Your task to perform on an android device: Show the shopping cart on ebay.com. Image 0: 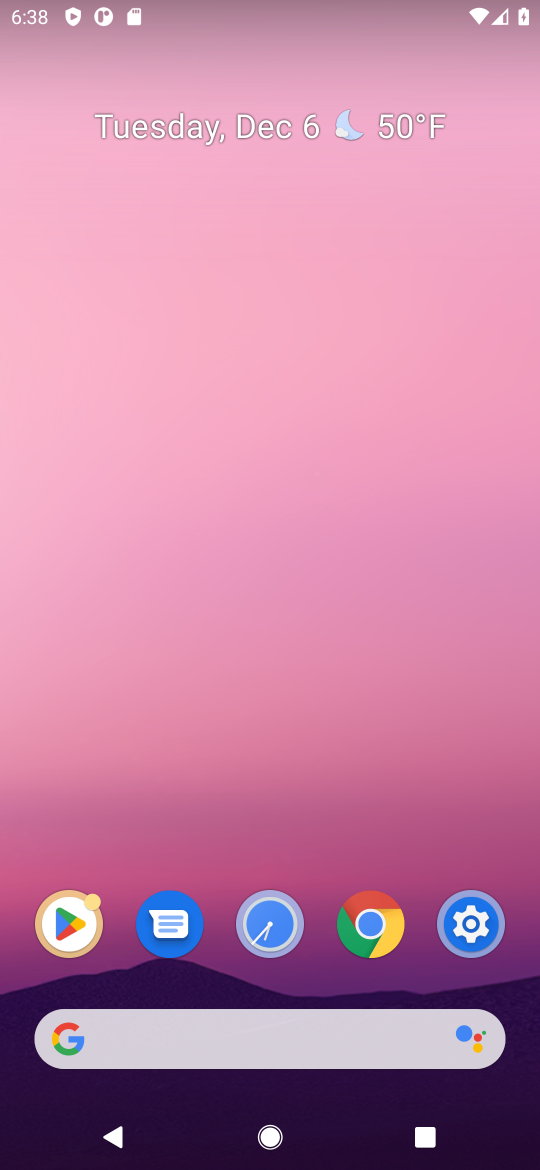
Step 0: click (261, 1047)
Your task to perform on an android device: Show the shopping cart on ebay.com. Image 1: 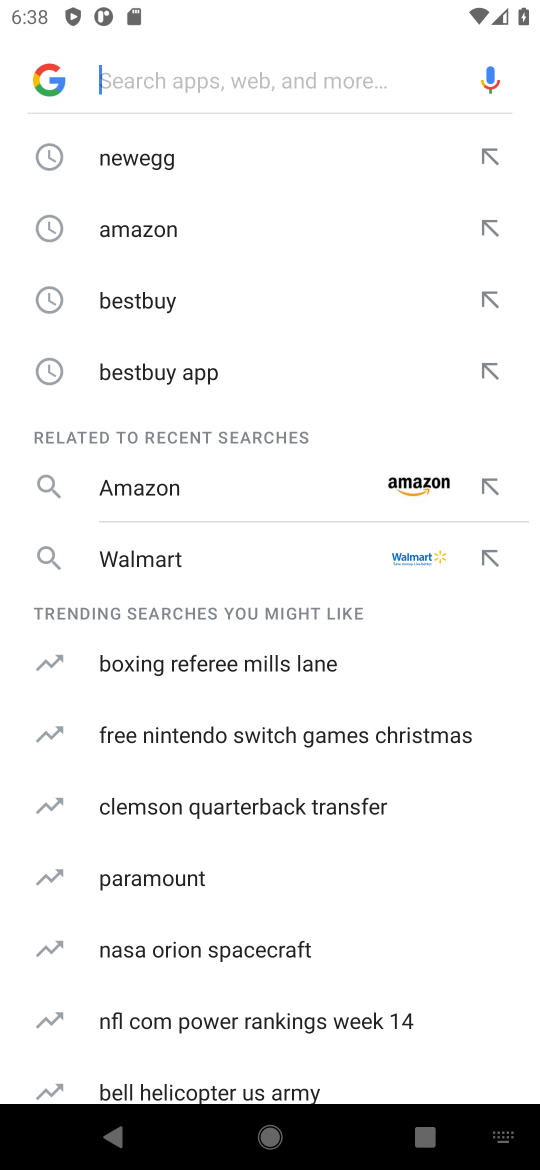
Step 1: type "ebay.com"
Your task to perform on an android device: Show the shopping cart on ebay.com. Image 2: 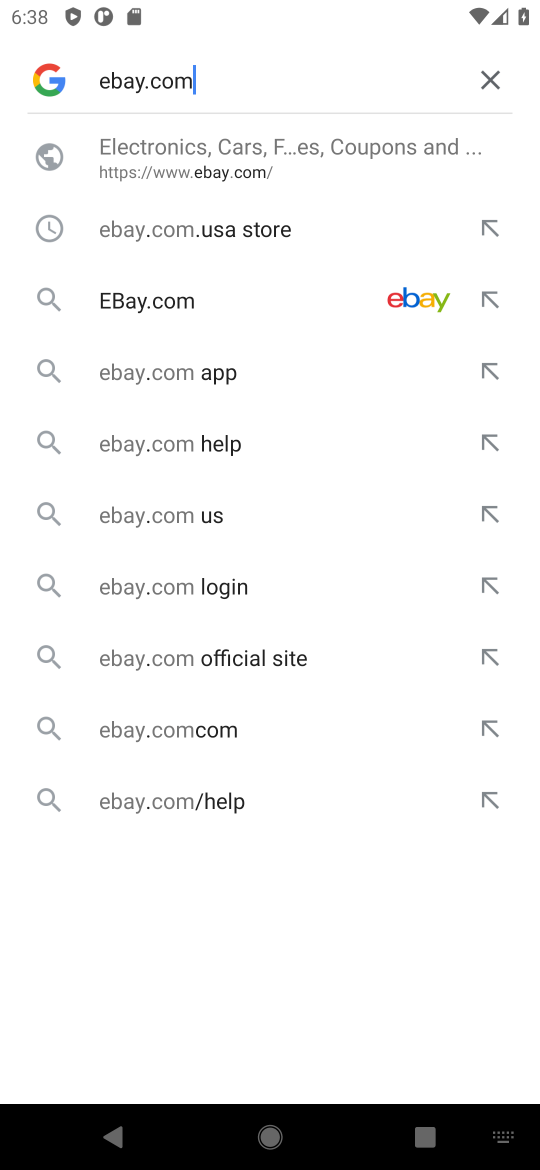
Step 2: click (349, 178)
Your task to perform on an android device: Show the shopping cart on ebay.com. Image 3: 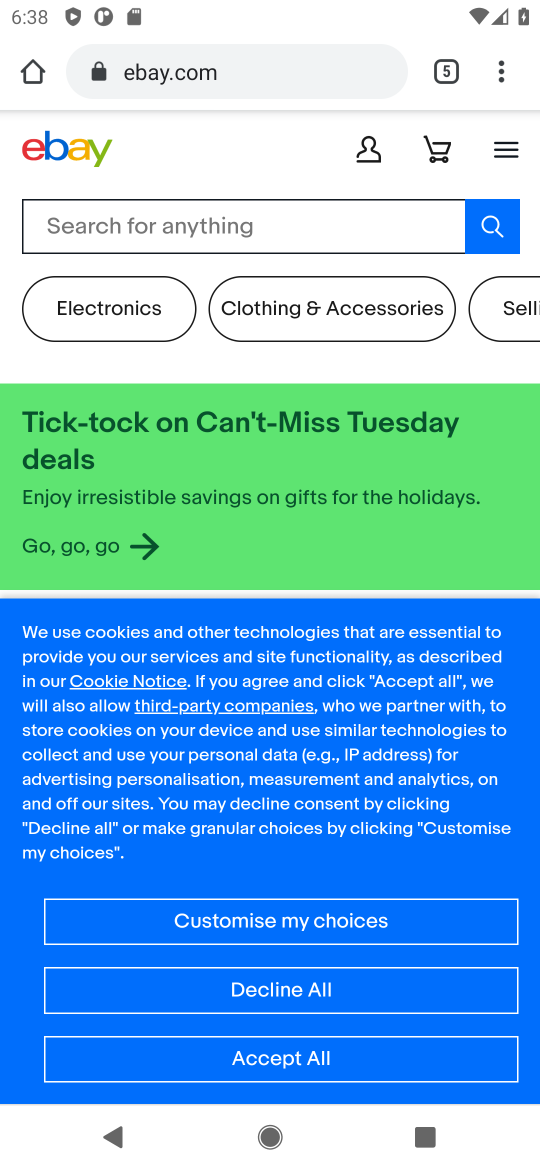
Step 3: click (288, 216)
Your task to perform on an android device: Show the shopping cart on ebay.com. Image 4: 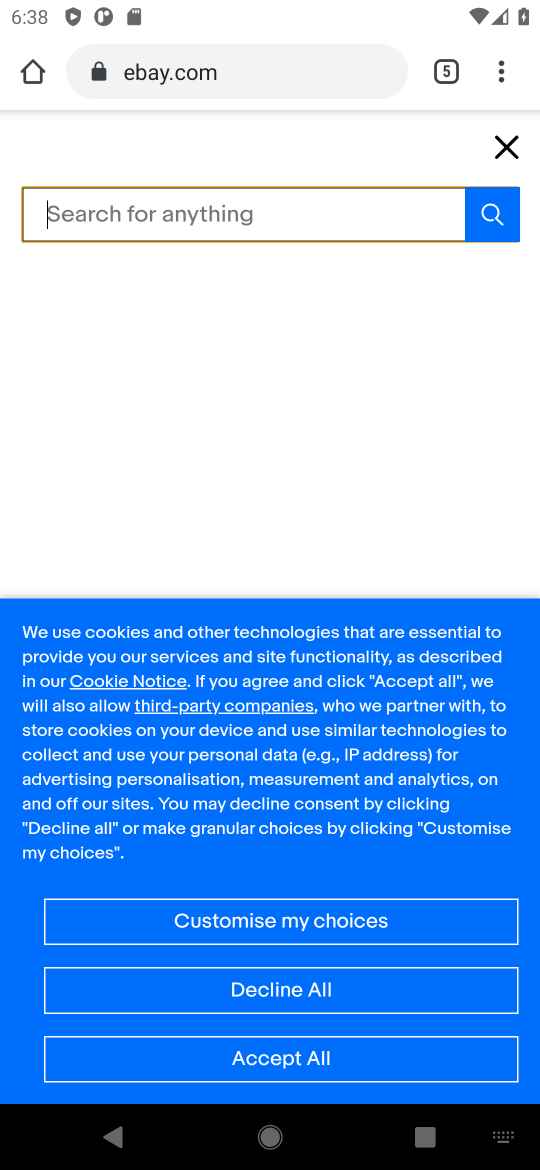
Step 4: click (507, 167)
Your task to perform on an android device: Show the shopping cart on ebay.com. Image 5: 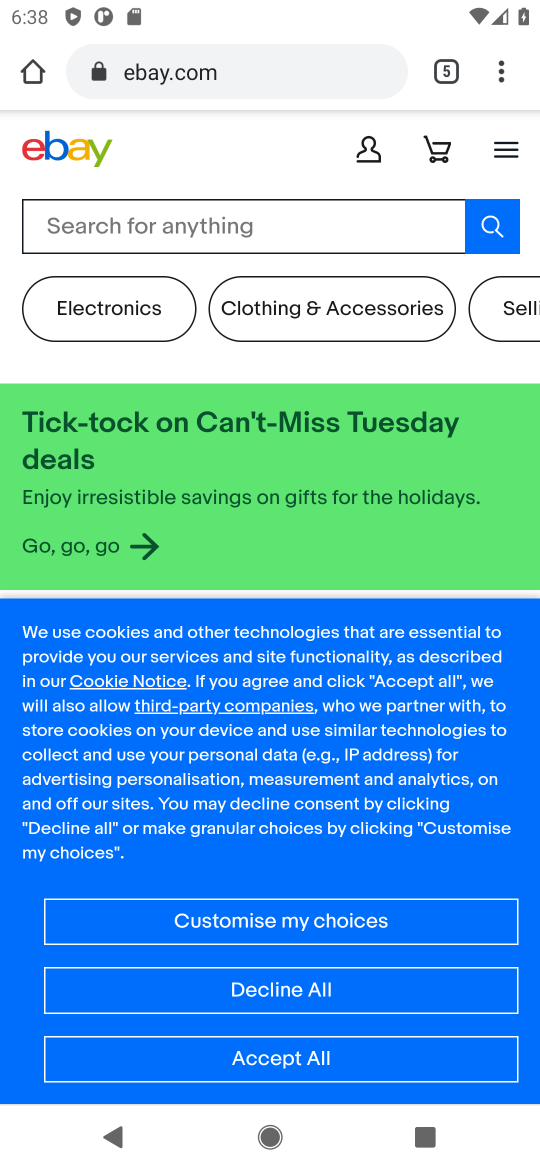
Step 5: click (54, 223)
Your task to perform on an android device: Show the shopping cart on ebay.com. Image 6: 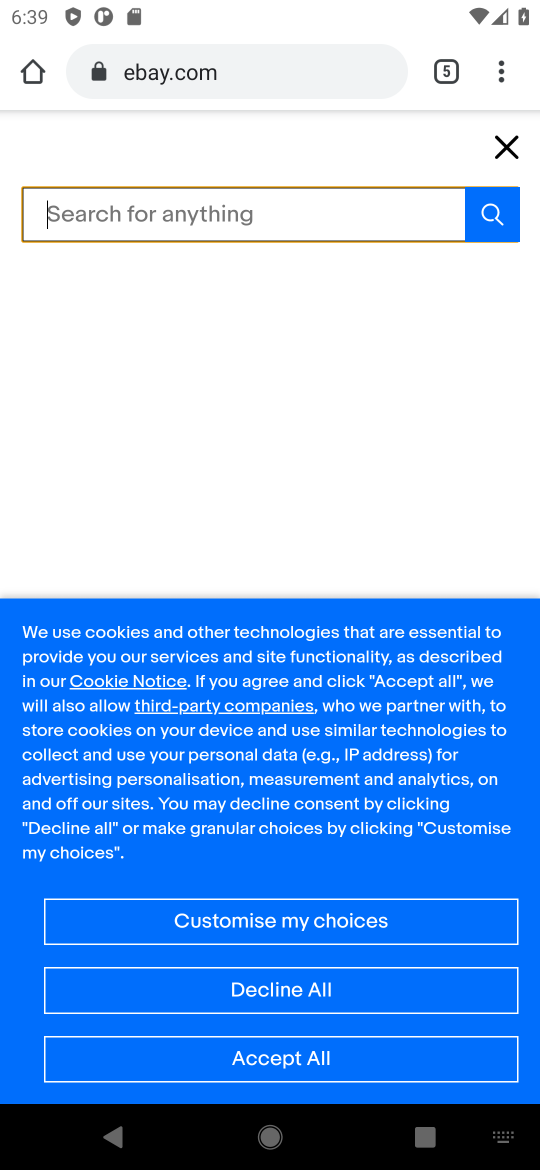
Step 6: click (506, 144)
Your task to perform on an android device: Show the shopping cart on ebay.com. Image 7: 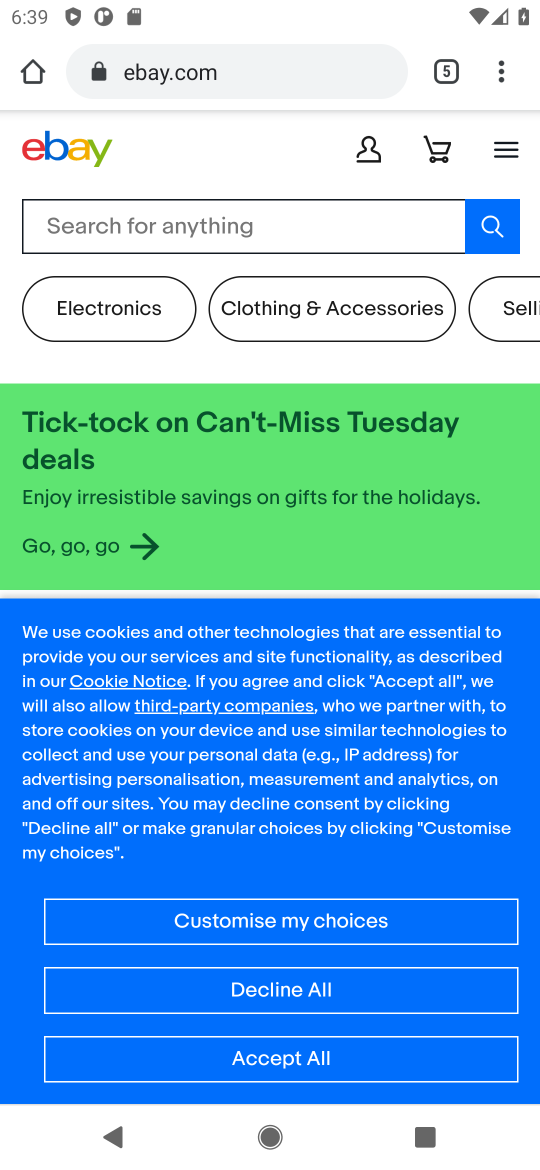
Step 7: click (443, 150)
Your task to perform on an android device: Show the shopping cart on ebay.com. Image 8: 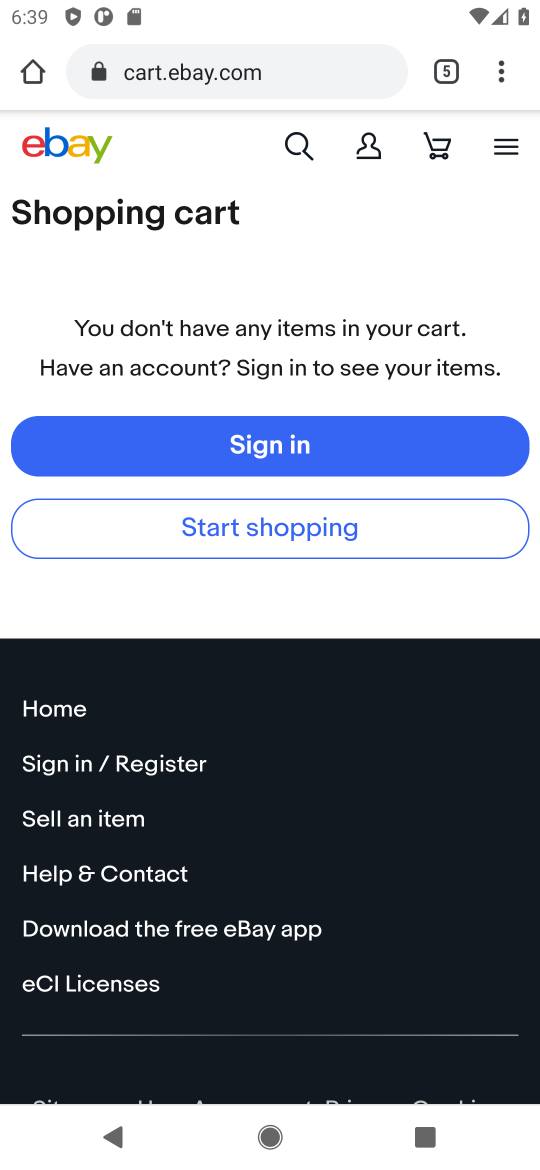
Step 8: task complete